Your task to perform on an android device: Open the Play Movies app and select the watchlist tab. Image 0: 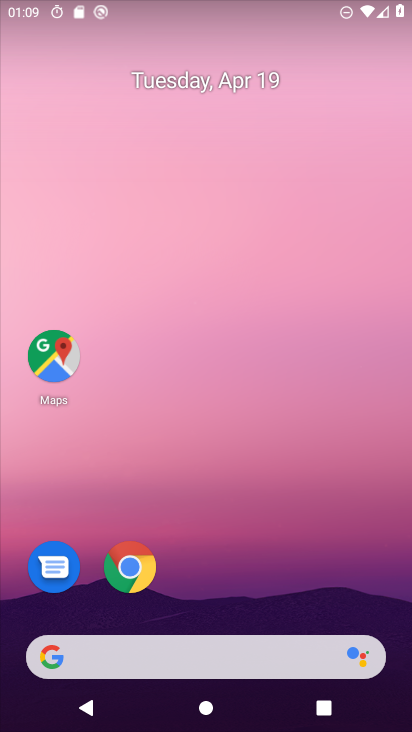
Step 0: drag from (268, 552) to (254, 164)
Your task to perform on an android device: Open the Play Movies app and select the watchlist tab. Image 1: 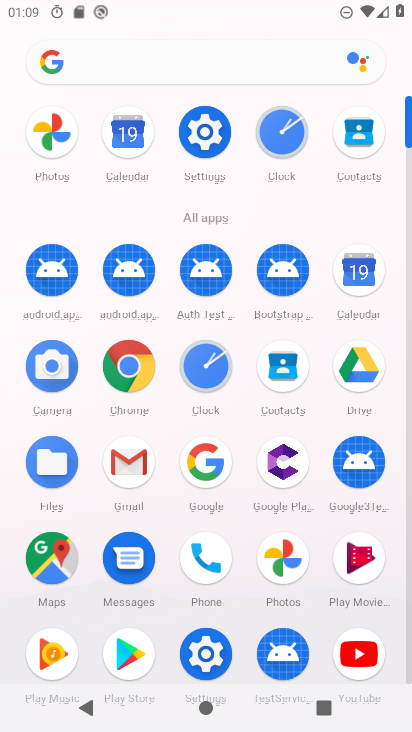
Step 1: click (369, 565)
Your task to perform on an android device: Open the Play Movies app and select the watchlist tab. Image 2: 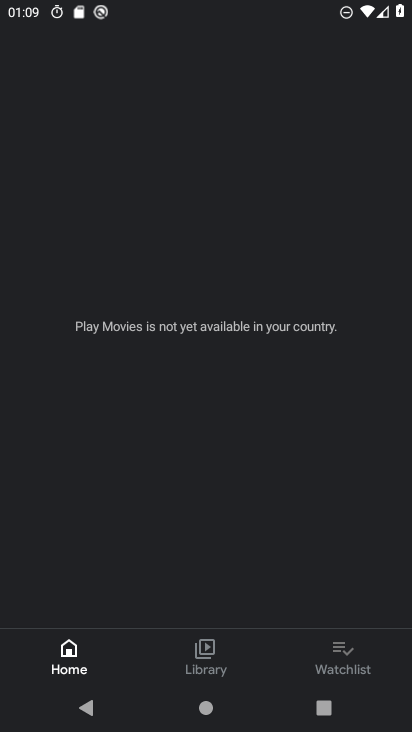
Step 2: click (357, 654)
Your task to perform on an android device: Open the Play Movies app and select the watchlist tab. Image 3: 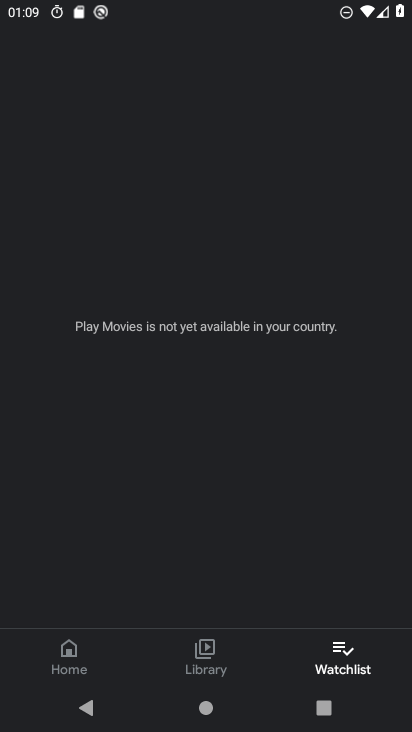
Step 3: task complete